Your task to perform on an android device: turn on the 12-hour format for clock Image 0: 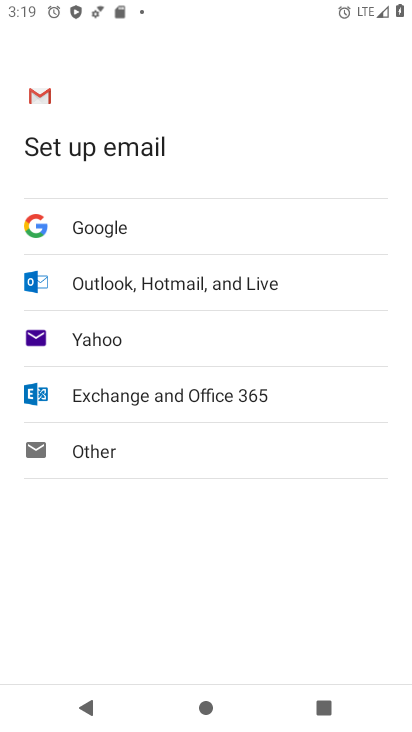
Step 0: press back button
Your task to perform on an android device: turn on the 12-hour format for clock Image 1: 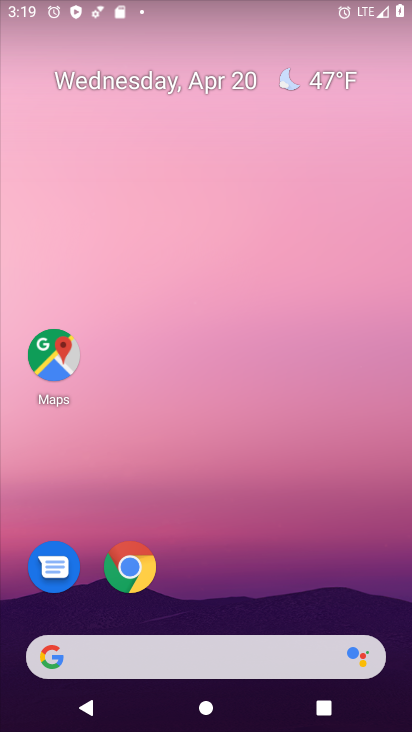
Step 1: drag from (324, 564) to (280, 77)
Your task to perform on an android device: turn on the 12-hour format for clock Image 2: 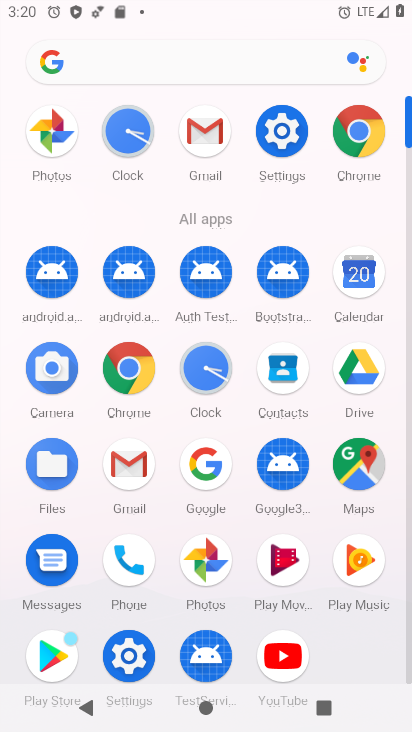
Step 2: drag from (13, 576) to (0, 268)
Your task to perform on an android device: turn on the 12-hour format for clock Image 3: 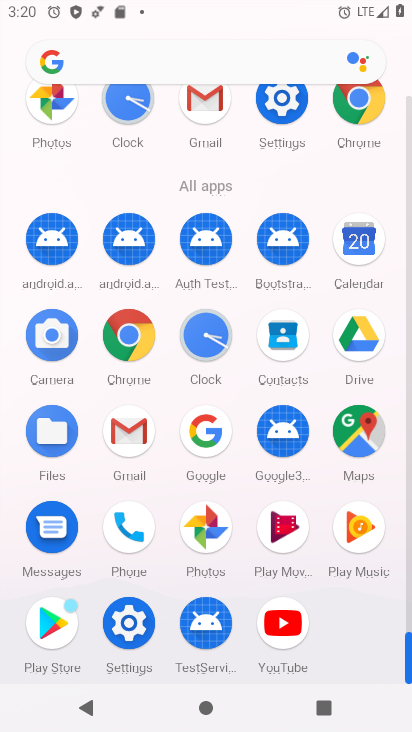
Step 3: click (117, 98)
Your task to perform on an android device: turn on the 12-hour format for clock Image 4: 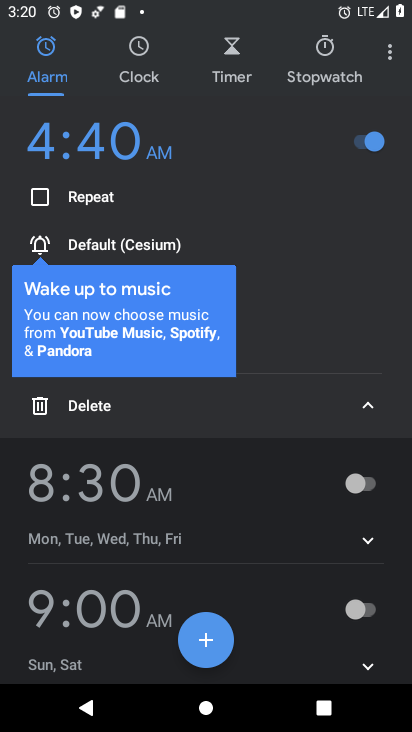
Step 4: click (394, 46)
Your task to perform on an android device: turn on the 12-hour format for clock Image 5: 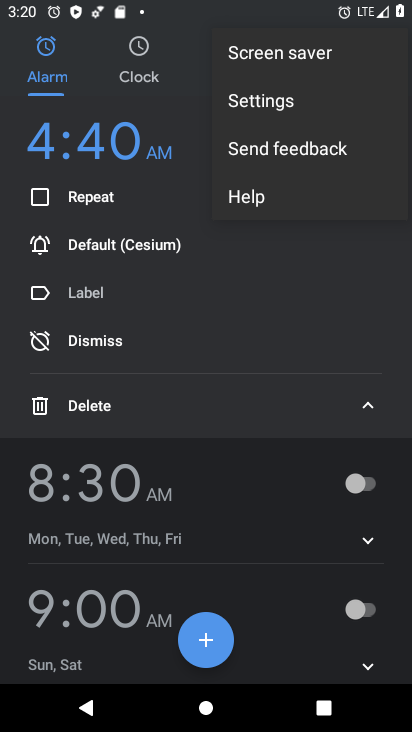
Step 5: click (263, 106)
Your task to perform on an android device: turn on the 12-hour format for clock Image 6: 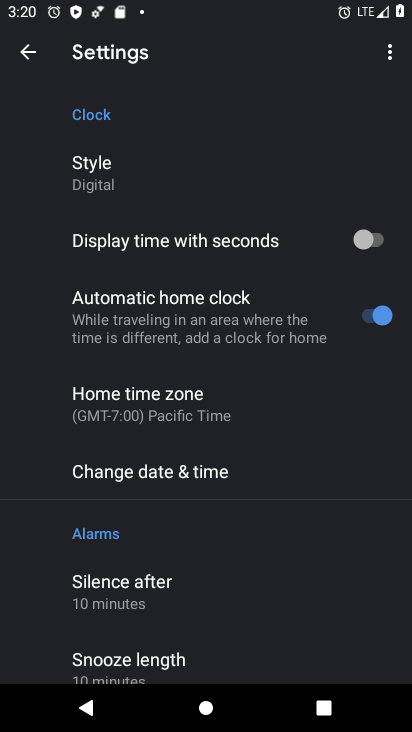
Step 6: click (263, 475)
Your task to perform on an android device: turn on the 12-hour format for clock Image 7: 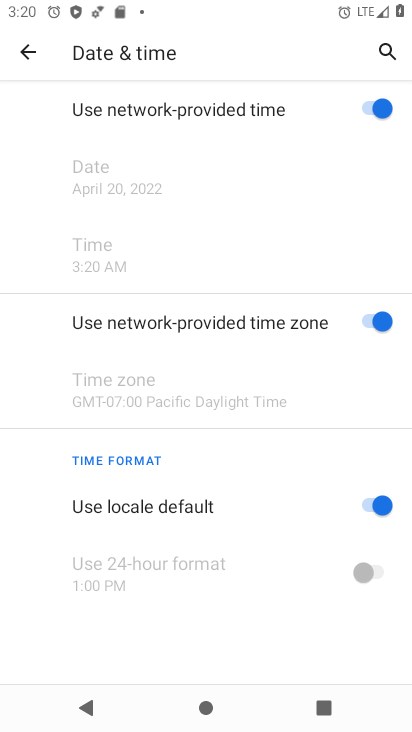
Step 7: task complete